Your task to perform on an android device: change notification settings in the gmail app Image 0: 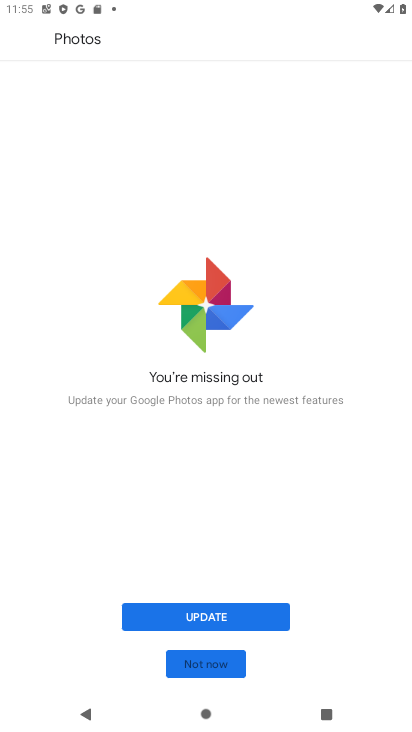
Step 0: click (201, 663)
Your task to perform on an android device: change notification settings in the gmail app Image 1: 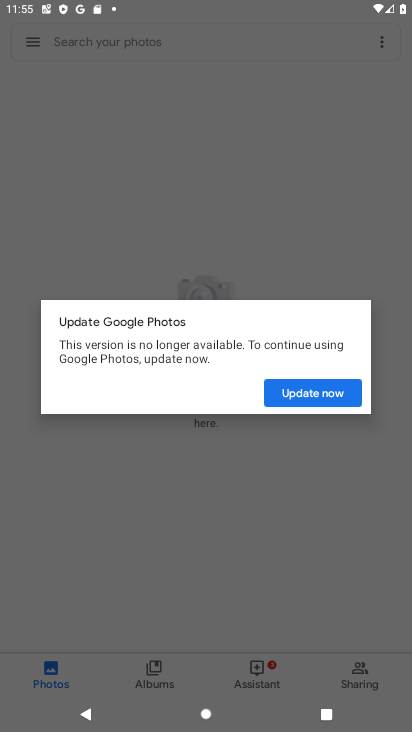
Step 1: task complete